Your task to perform on an android device: change notification settings in the gmail app Image 0: 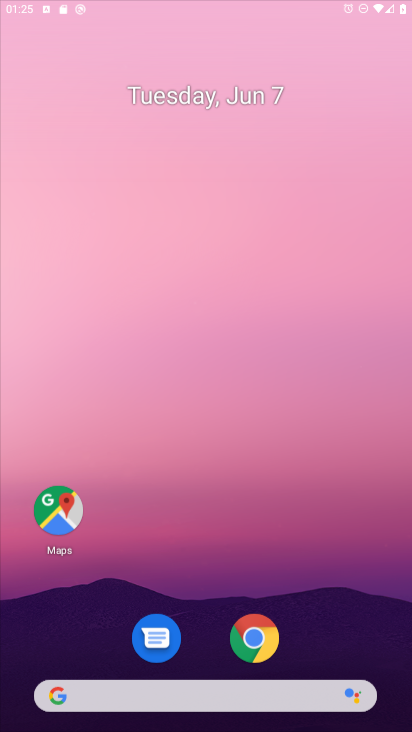
Step 0: press home button
Your task to perform on an android device: change notification settings in the gmail app Image 1: 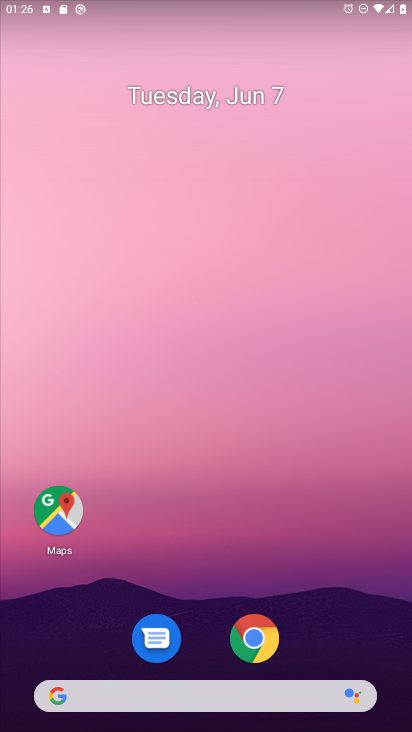
Step 1: drag from (179, 450) to (165, 182)
Your task to perform on an android device: change notification settings in the gmail app Image 2: 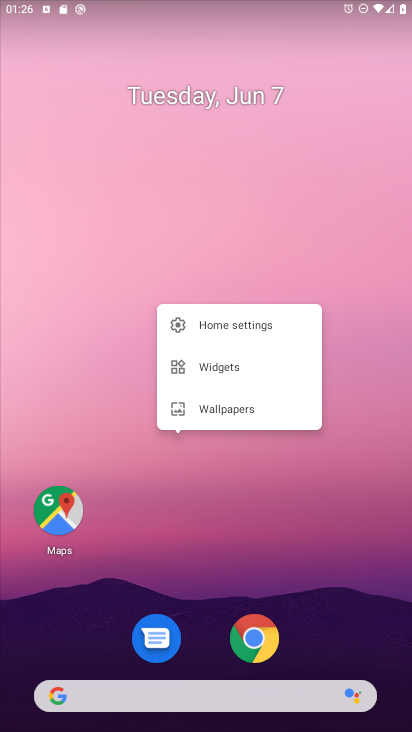
Step 2: drag from (269, 547) to (254, 121)
Your task to perform on an android device: change notification settings in the gmail app Image 3: 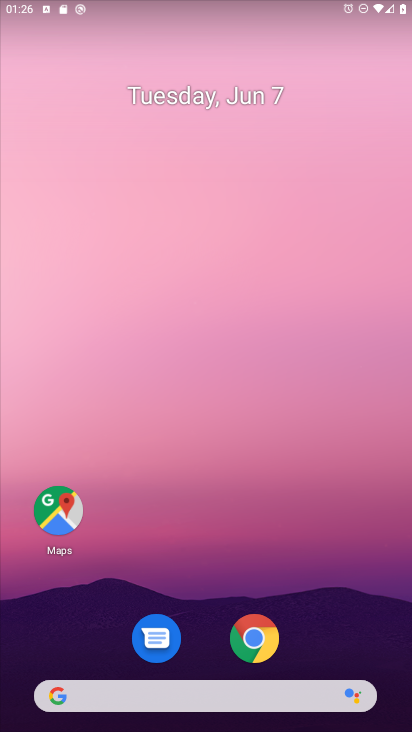
Step 3: drag from (220, 702) to (280, 113)
Your task to perform on an android device: change notification settings in the gmail app Image 4: 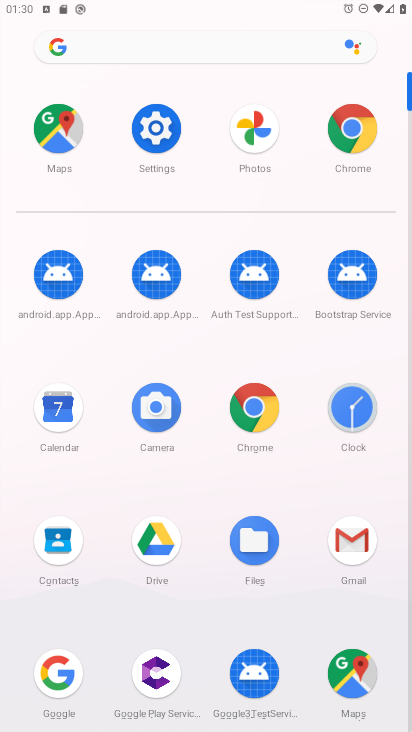
Step 4: click (354, 532)
Your task to perform on an android device: change notification settings in the gmail app Image 5: 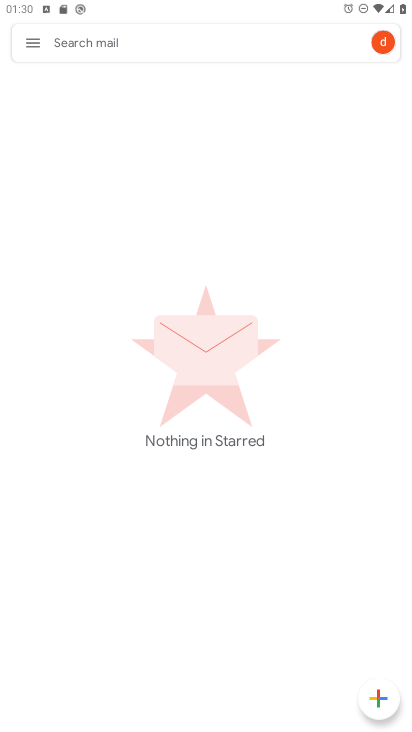
Step 5: click (338, 548)
Your task to perform on an android device: change notification settings in the gmail app Image 6: 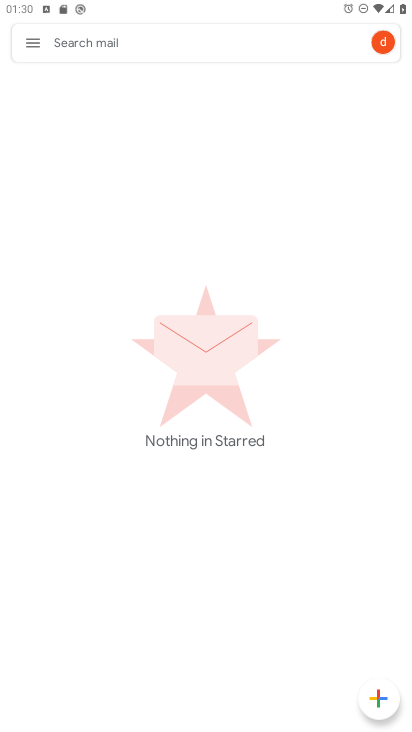
Step 6: click (40, 37)
Your task to perform on an android device: change notification settings in the gmail app Image 7: 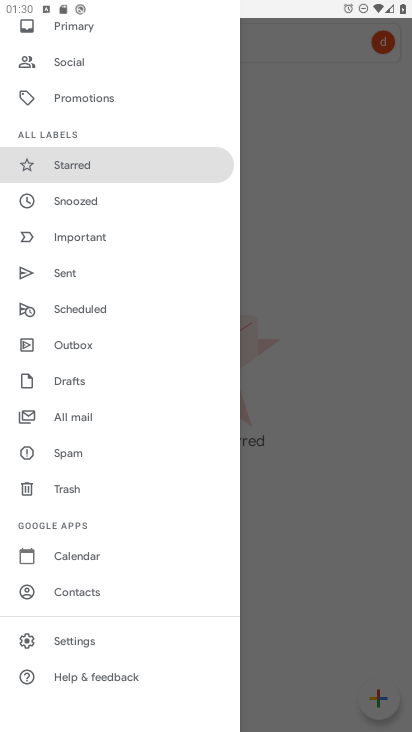
Step 7: click (34, 51)
Your task to perform on an android device: change notification settings in the gmail app Image 8: 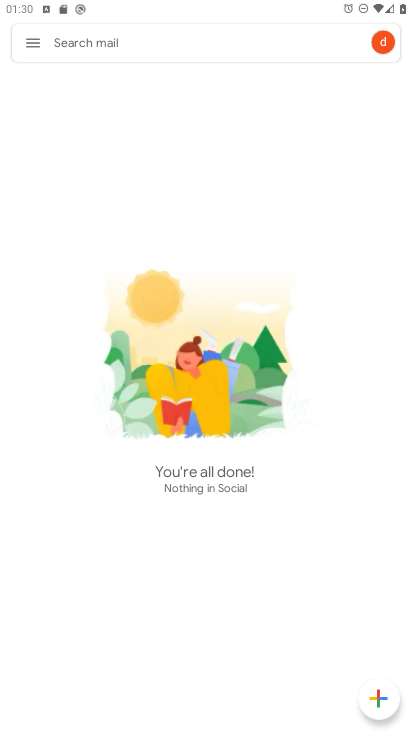
Step 8: click (73, 639)
Your task to perform on an android device: change notification settings in the gmail app Image 9: 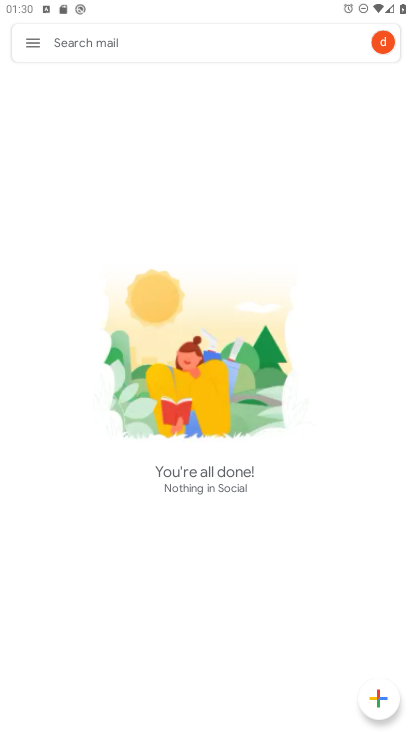
Step 9: click (36, 31)
Your task to perform on an android device: change notification settings in the gmail app Image 10: 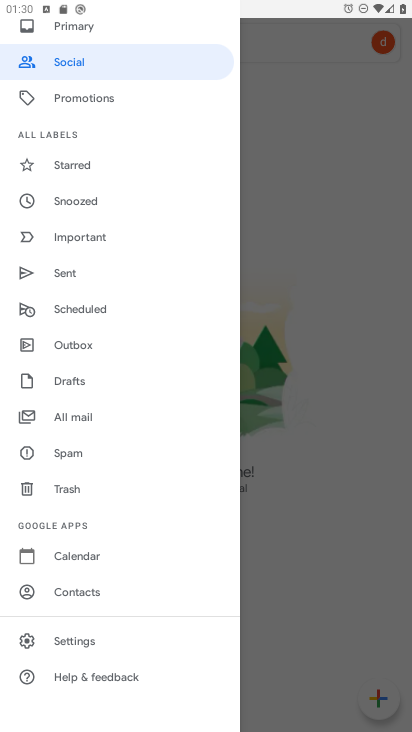
Step 10: click (27, 47)
Your task to perform on an android device: change notification settings in the gmail app Image 11: 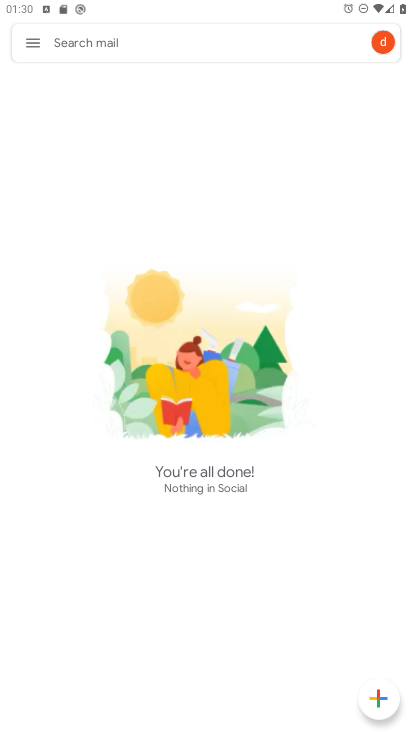
Step 11: click (27, 46)
Your task to perform on an android device: change notification settings in the gmail app Image 12: 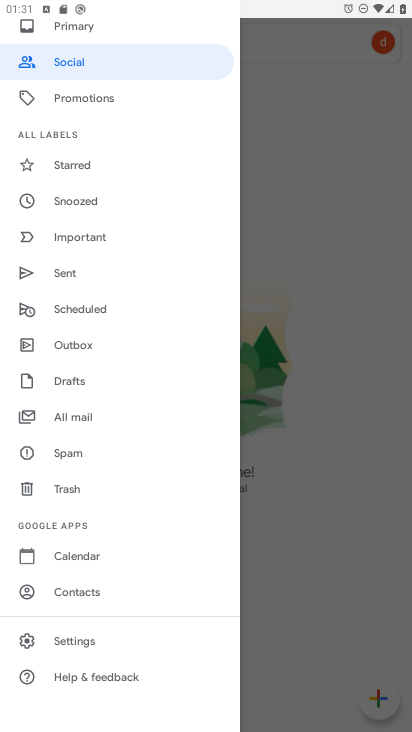
Step 12: click (68, 634)
Your task to perform on an android device: change notification settings in the gmail app Image 13: 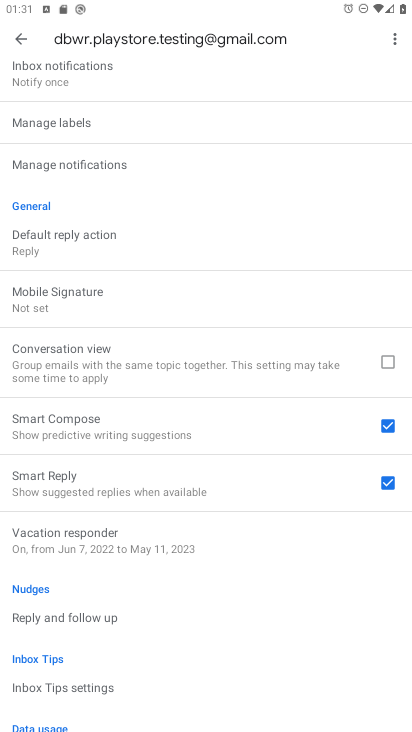
Step 13: drag from (68, 143) to (81, 264)
Your task to perform on an android device: change notification settings in the gmail app Image 14: 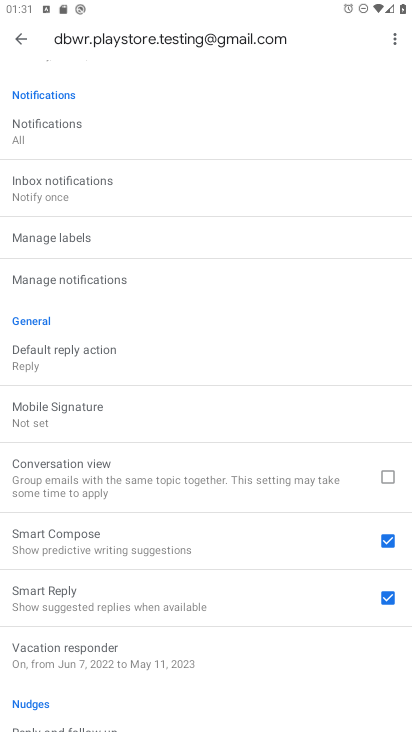
Step 14: click (53, 82)
Your task to perform on an android device: change notification settings in the gmail app Image 15: 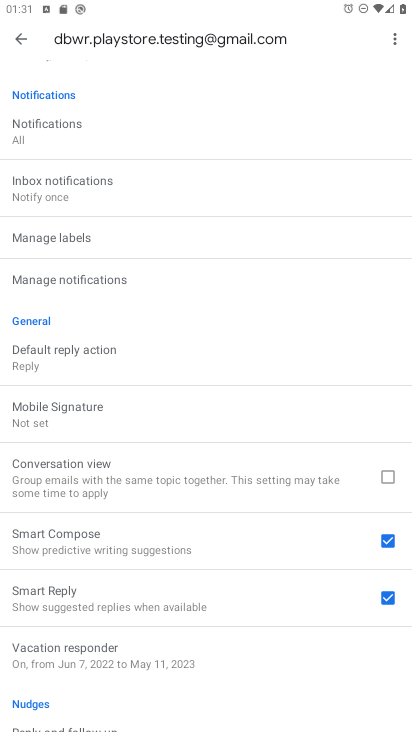
Step 15: click (24, 127)
Your task to perform on an android device: change notification settings in the gmail app Image 16: 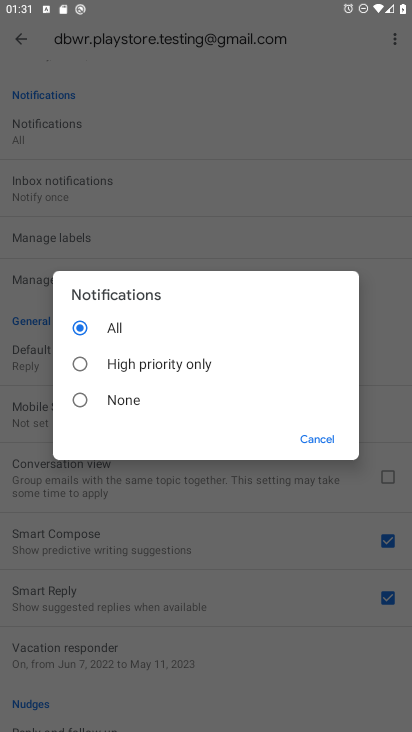
Step 16: task complete